Your task to perform on an android device: add a contact in the contacts app Image 0: 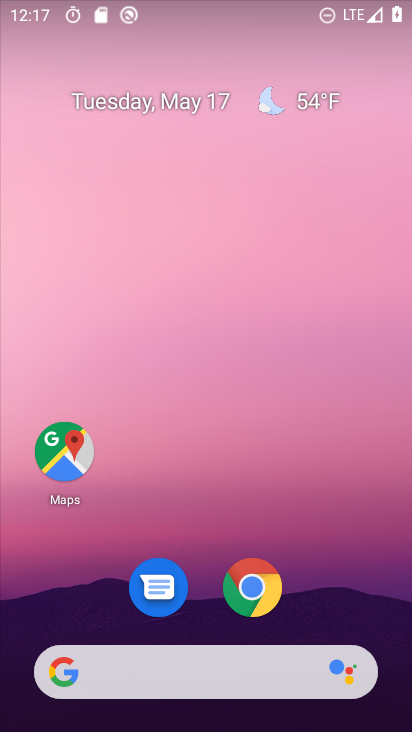
Step 0: drag from (175, 626) to (179, 72)
Your task to perform on an android device: add a contact in the contacts app Image 1: 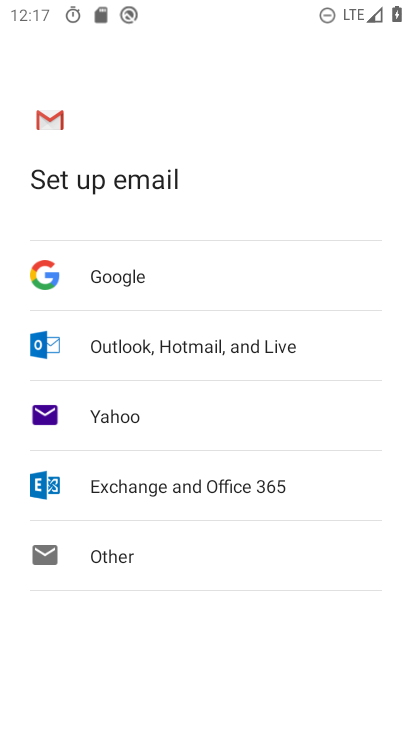
Step 1: press home button
Your task to perform on an android device: add a contact in the contacts app Image 2: 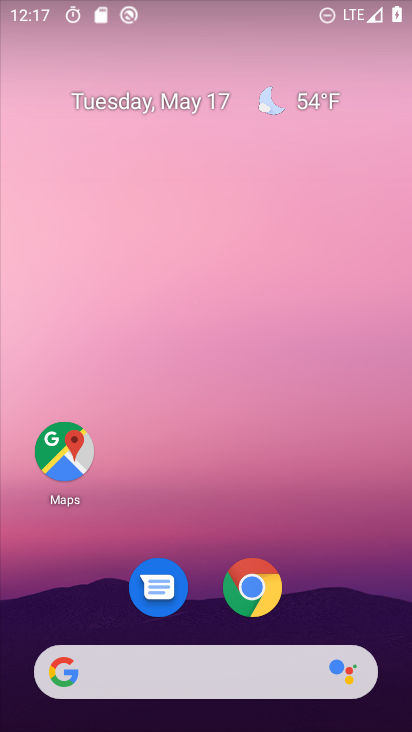
Step 2: drag from (215, 619) to (273, 132)
Your task to perform on an android device: add a contact in the contacts app Image 3: 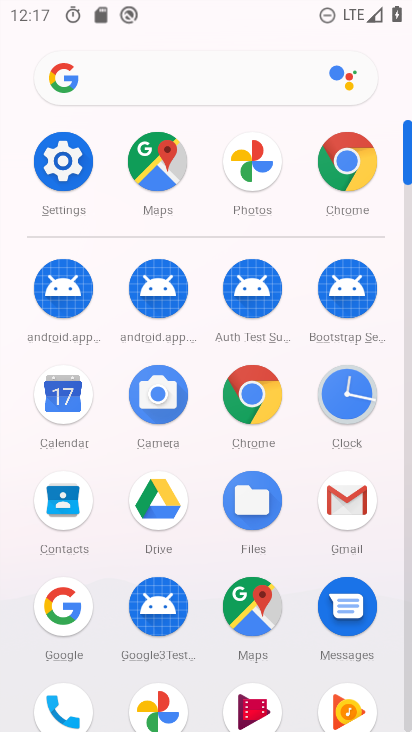
Step 3: click (38, 484)
Your task to perform on an android device: add a contact in the contacts app Image 4: 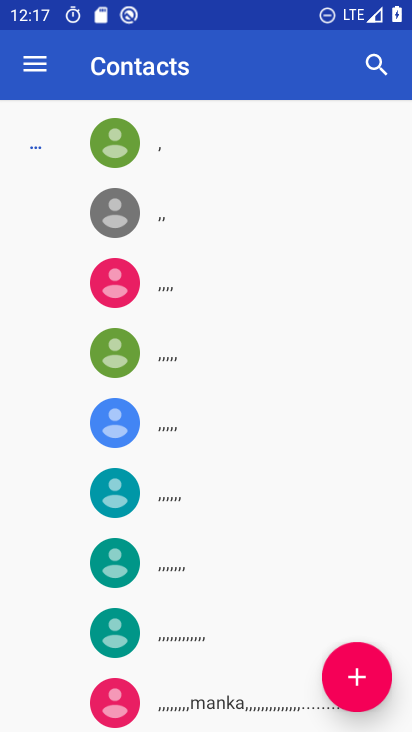
Step 4: click (367, 685)
Your task to perform on an android device: add a contact in the contacts app Image 5: 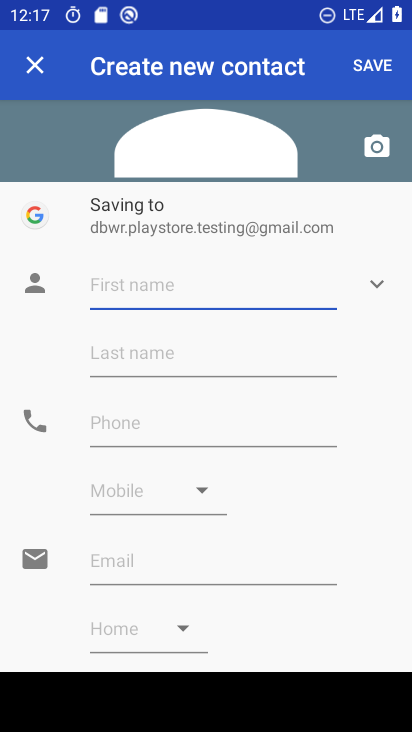
Step 5: click (217, 294)
Your task to perform on an android device: add a contact in the contacts app Image 6: 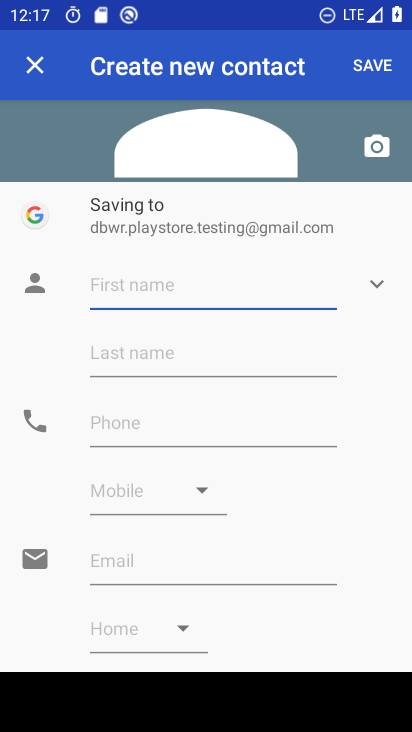
Step 6: type "sjxks"
Your task to perform on an android device: add a contact in the contacts app Image 7: 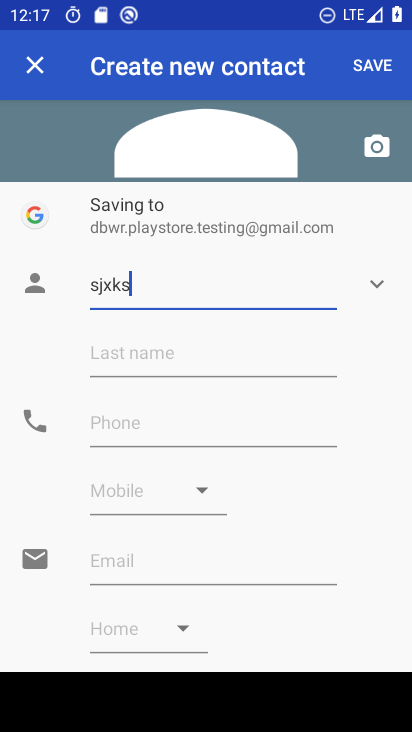
Step 7: click (364, 66)
Your task to perform on an android device: add a contact in the contacts app Image 8: 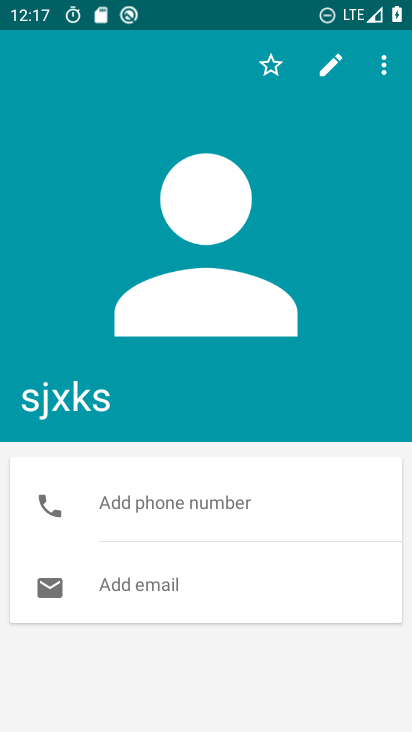
Step 8: task complete